Your task to perform on an android device: toggle translation in the chrome app Image 0: 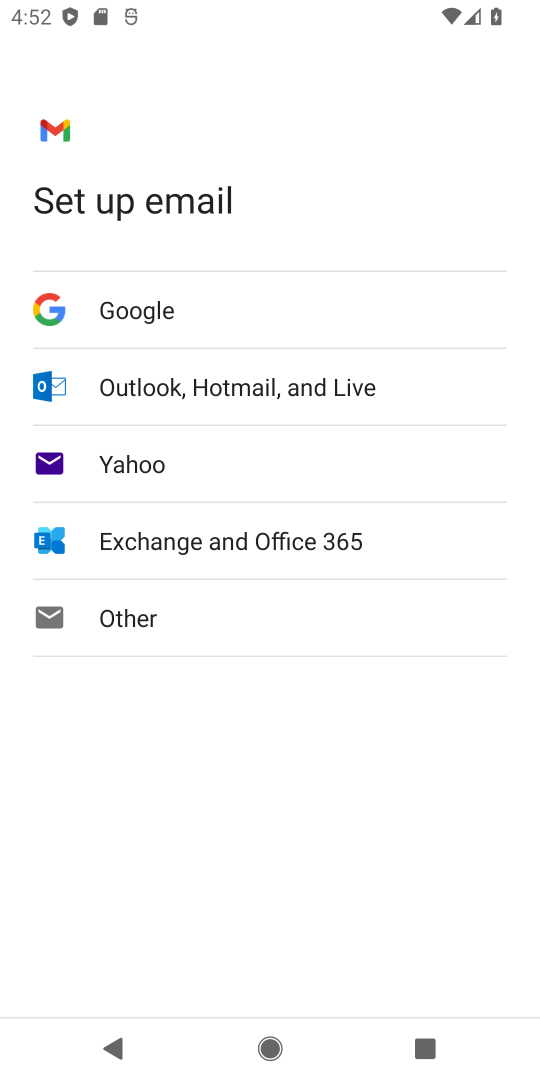
Step 0: press home button
Your task to perform on an android device: toggle translation in the chrome app Image 1: 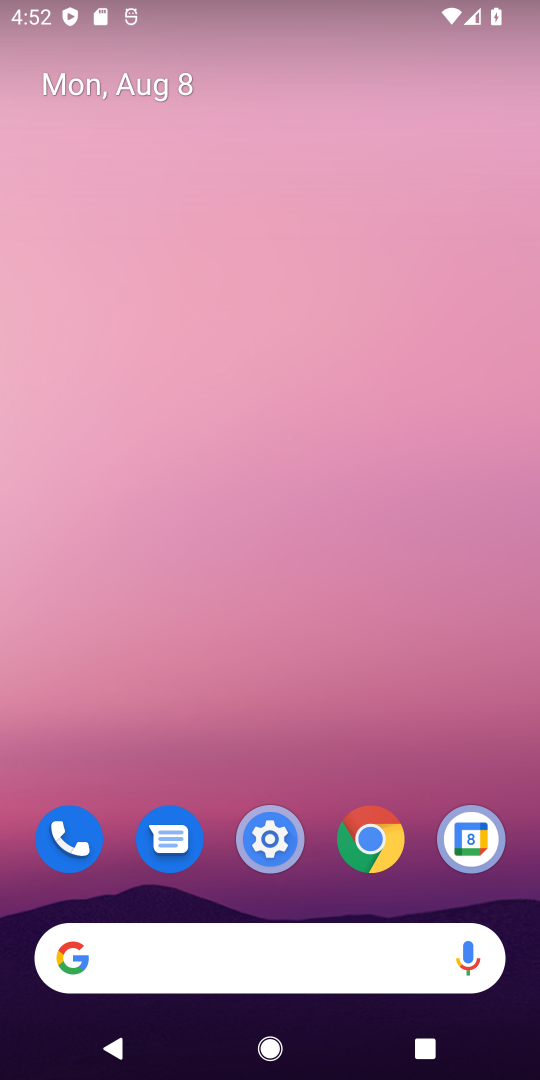
Step 1: click (363, 847)
Your task to perform on an android device: toggle translation in the chrome app Image 2: 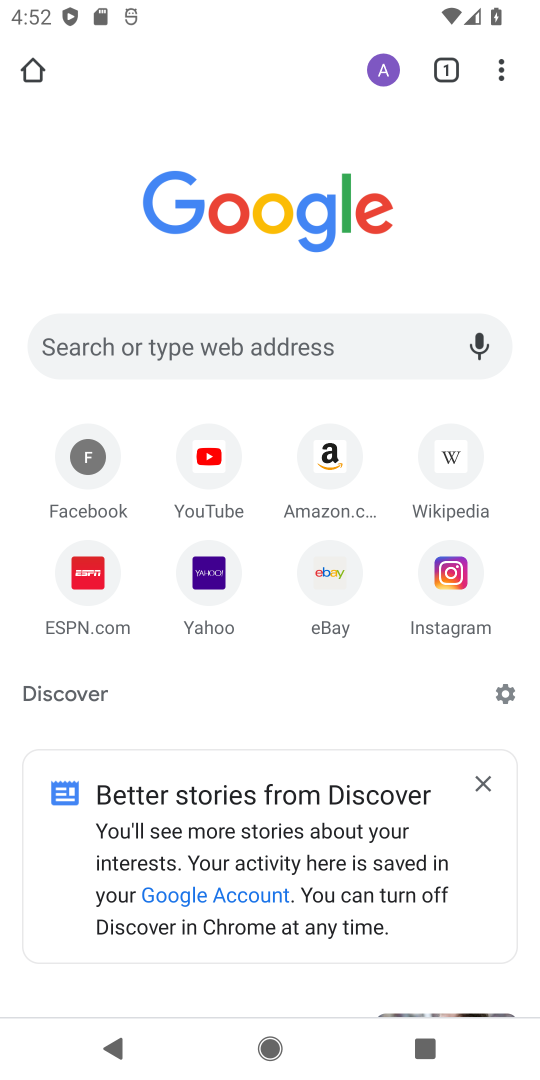
Step 2: click (502, 77)
Your task to perform on an android device: toggle translation in the chrome app Image 3: 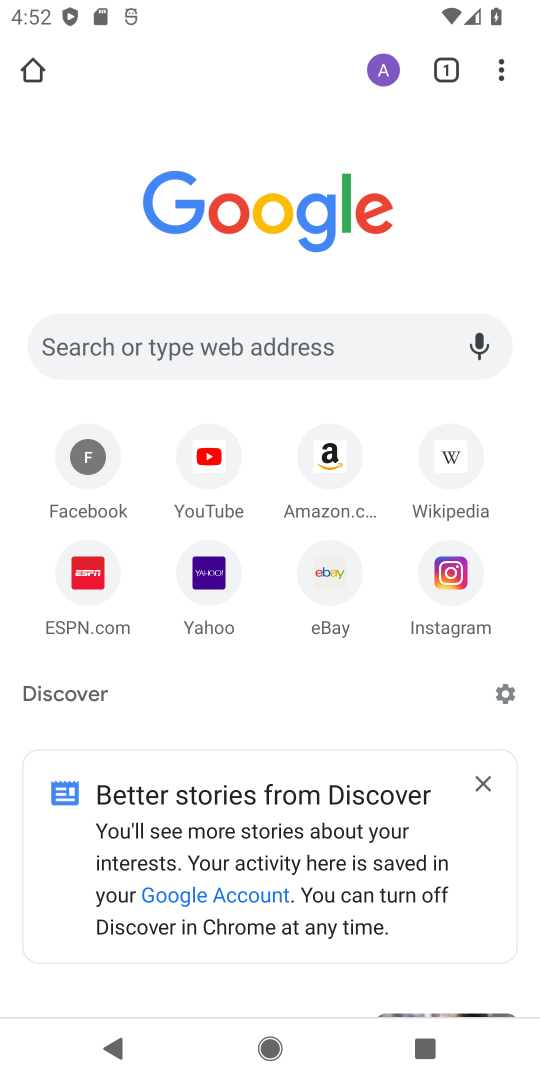
Step 3: click (495, 77)
Your task to perform on an android device: toggle translation in the chrome app Image 4: 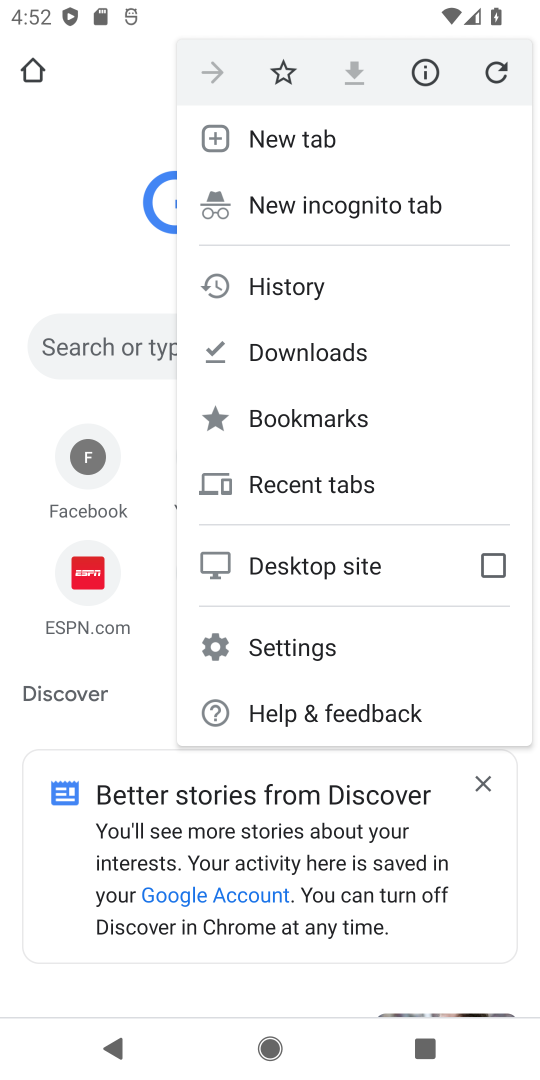
Step 4: click (292, 646)
Your task to perform on an android device: toggle translation in the chrome app Image 5: 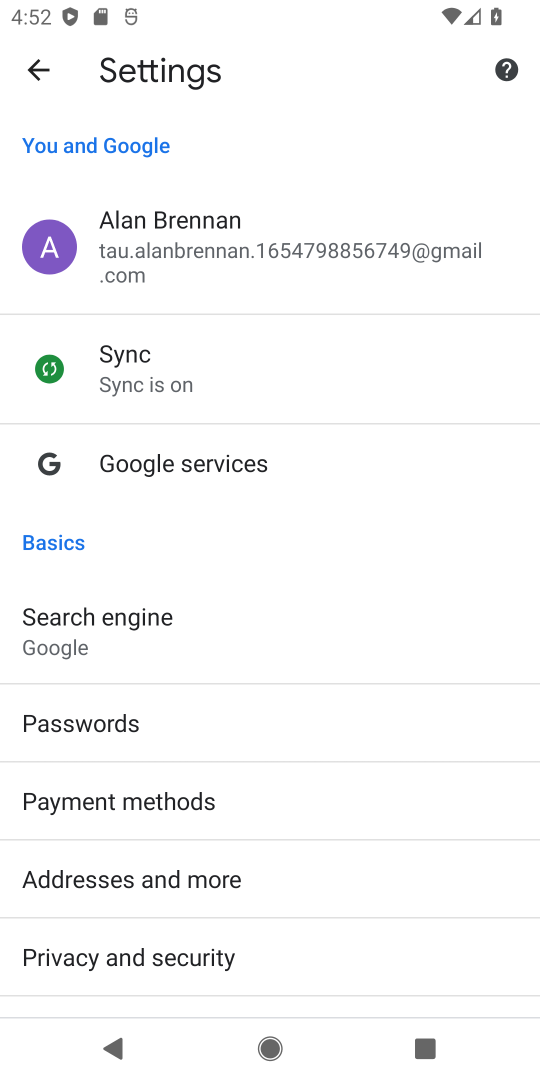
Step 5: drag from (172, 786) to (177, 400)
Your task to perform on an android device: toggle translation in the chrome app Image 6: 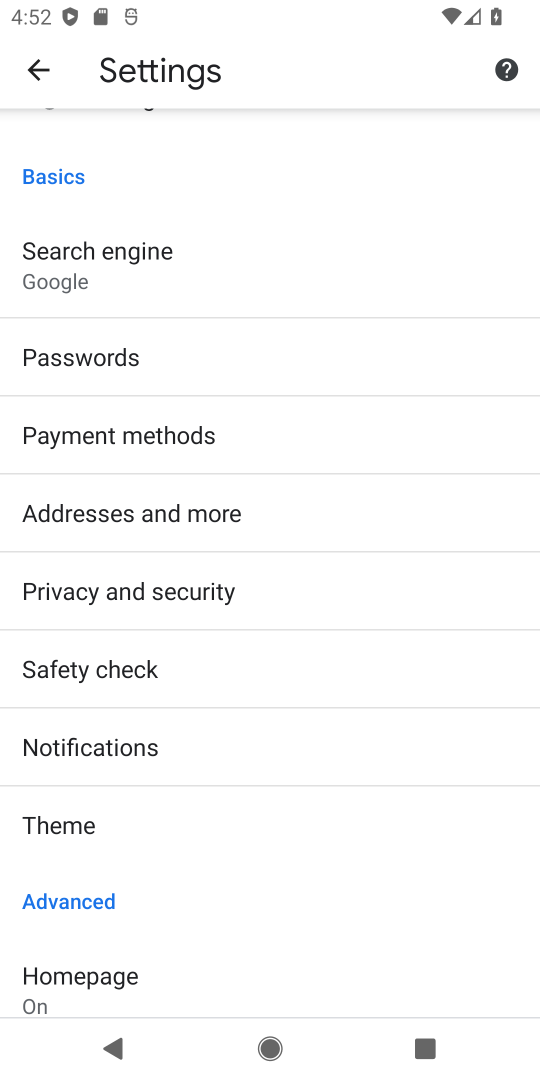
Step 6: drag from (163, 561) to (161, 418)
Your task to perform on an android device: toggle translation in the chrome app Image 7: 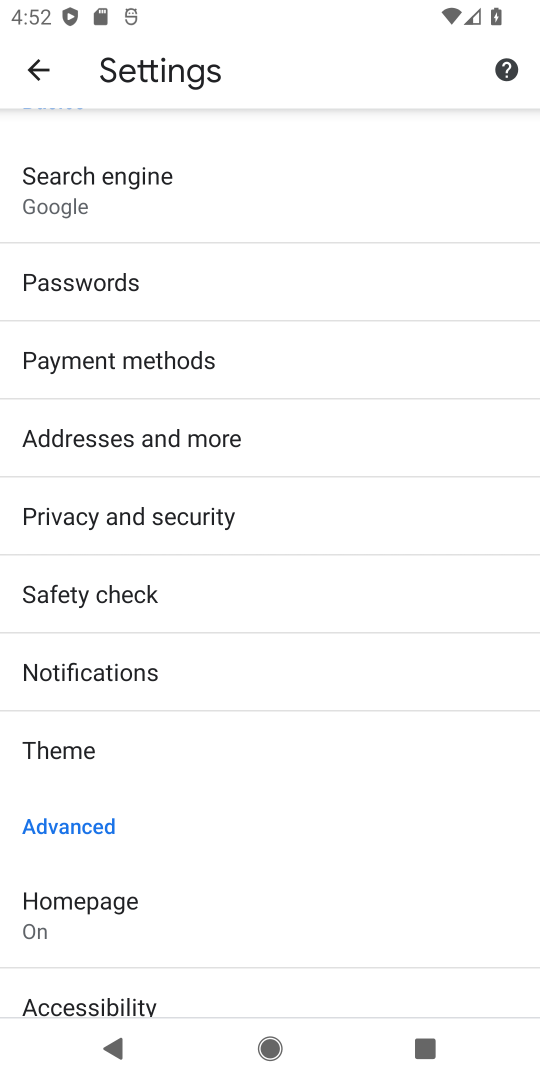
Step 7: drag from (160, 943) to (227, 144)
Your task to perform on an android device: toggle translation in the chrome app Image 8: 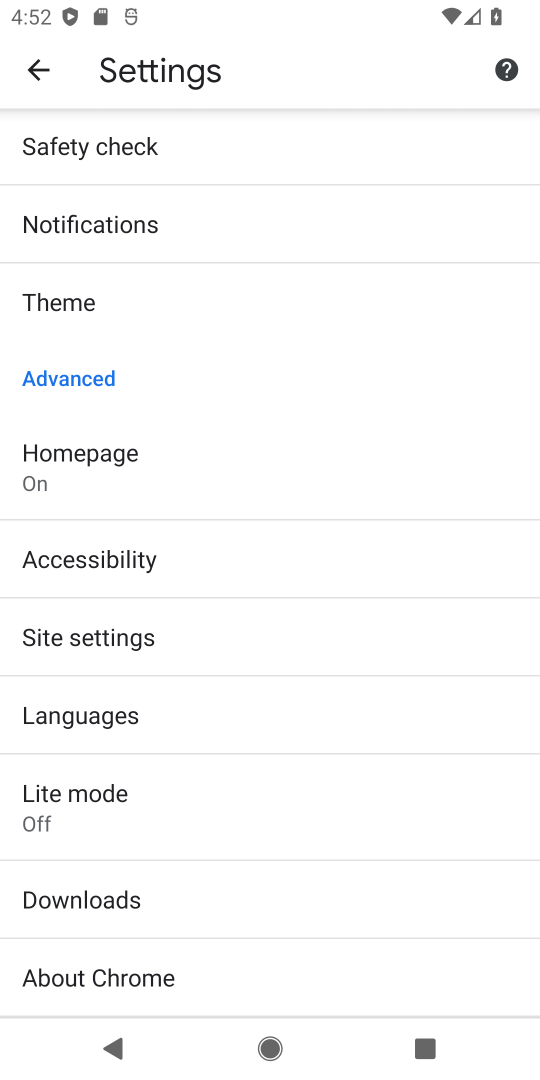
Step 8: click (112, 709)
Your task to perform on an android device: toggle translation in the chrome app Image 9: 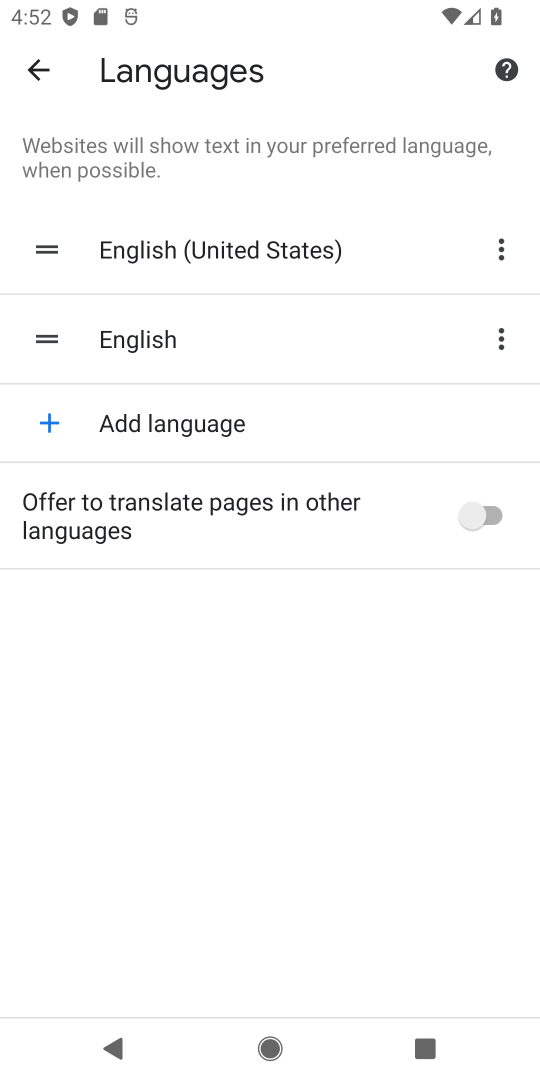
Step 9: click (508, 516)
Your task to perform on an android device: toggle translation in the chrome app Image 10: 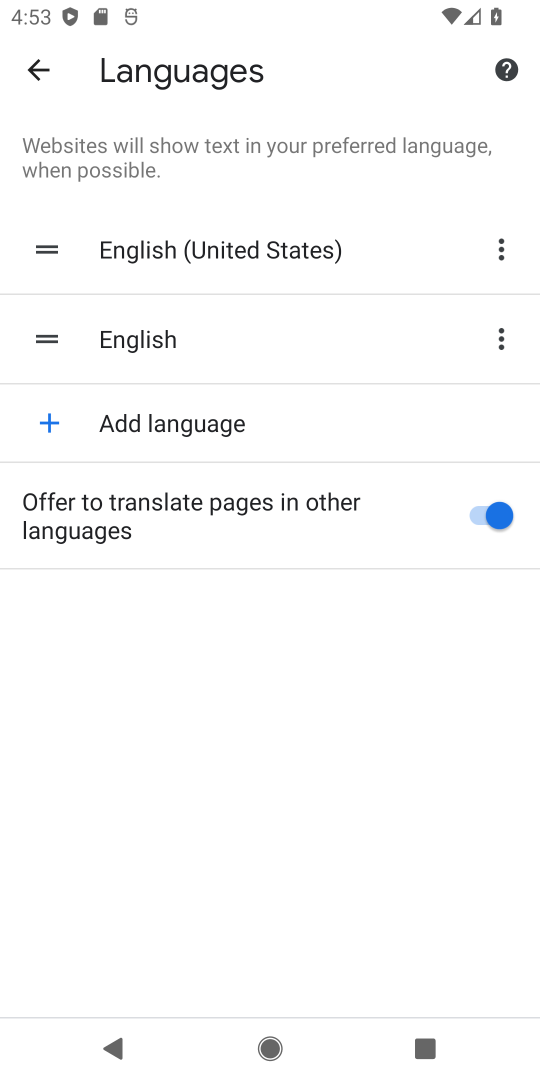
Step 10: task complete